Your task to perform on an android device: Search for Mexican restaurants on Maps Image 0: 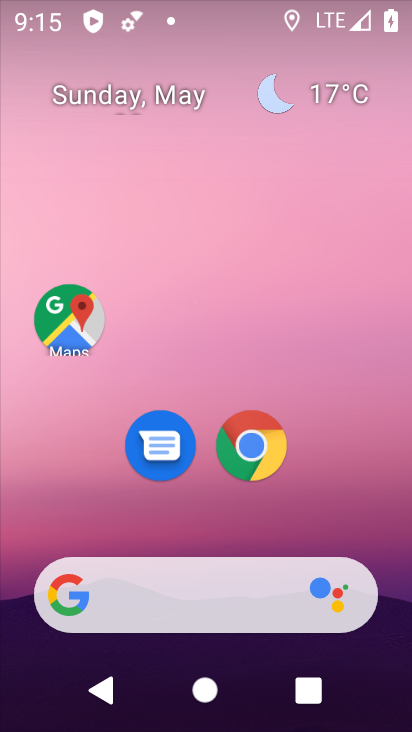
Step 0: click (216, 186)
Your task to perform on an android device: Search for Mexican restaurants on Maps Image 1: 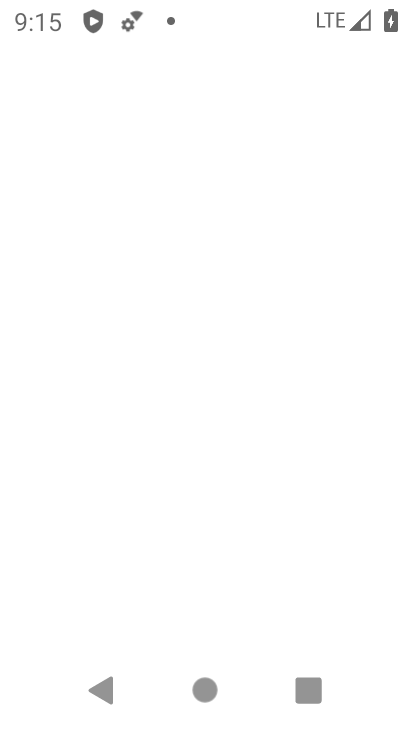
Step 1: press home button
Your task to perform on an android device: Search for Mexican restaurants on Maps Image 2: 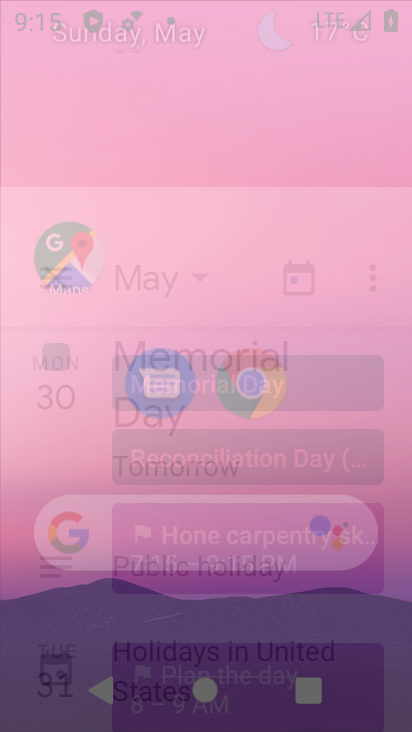
Step 2: drag from (152, 597) to (239, 168)
Your task to perform on an android device: Search for Mexican restaurants on Maps Image 3: 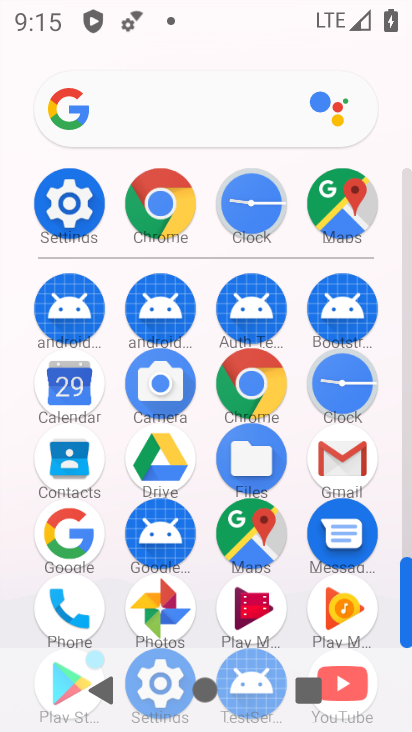
Step 3: click (270, 538)
Your task to perform on an android device: Search for Mexican restaurants on Maps Image 4: 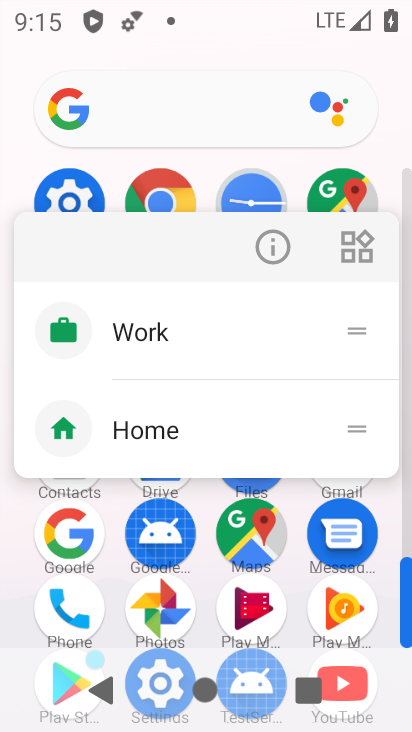
Step 4: click (273, 244)
Your task to perform on an android device: Search for Mexican restaurants on Maps Image 5: 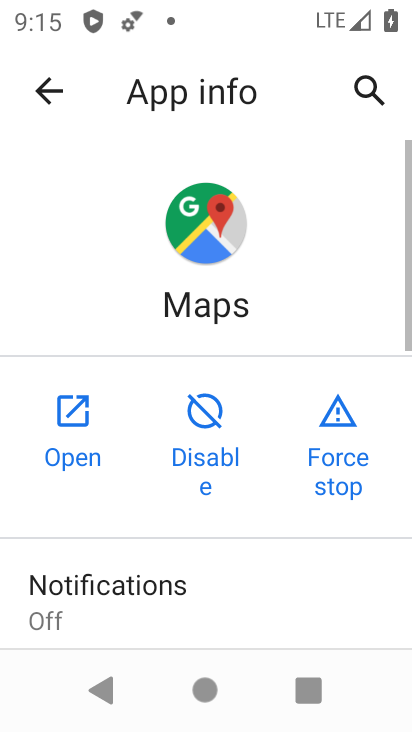
Step 5: click (67, 419)
Your task to perform on an android device: Search for Mexican restaurants on Maps Image 6: 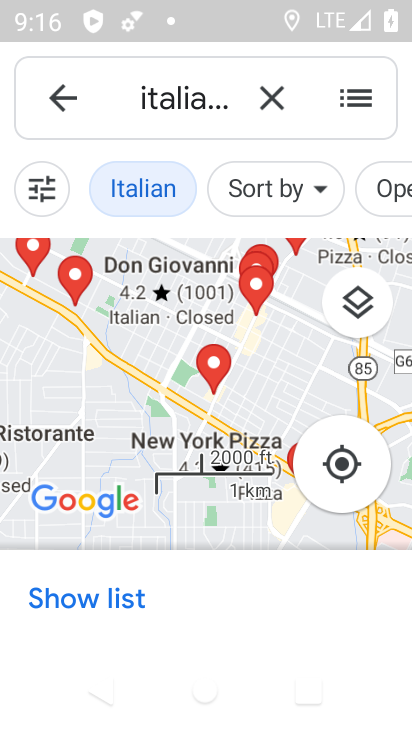
Step 6: click (266, 92)
Your task to perform on an android device: Search for Mexican restaurants on Maps Image 7: 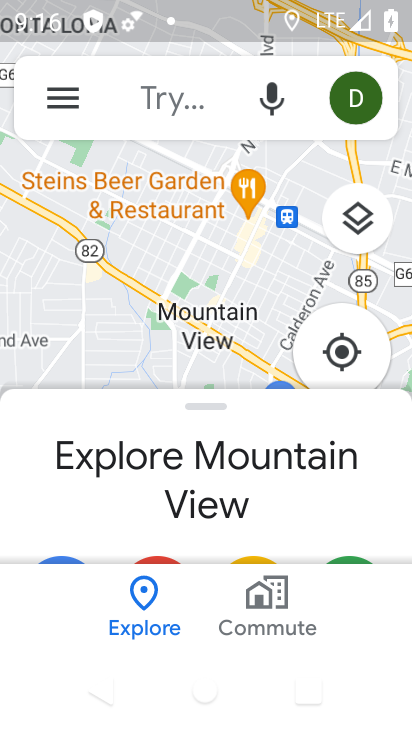
Step 7: click (146, 93)
Your task to perform on an android device: Search for Mexican restaurants on Maps Image 8: 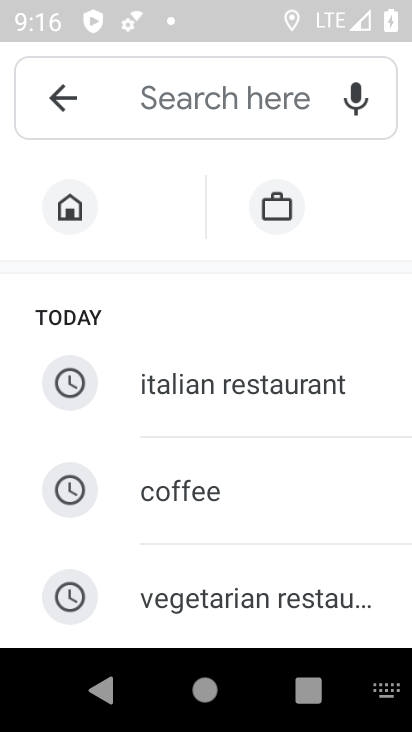
Step 8: drag from (210, 510) to (322, 112)
Your task to perform on an android device: Search for Mexican restaurants on Maps Image 9: 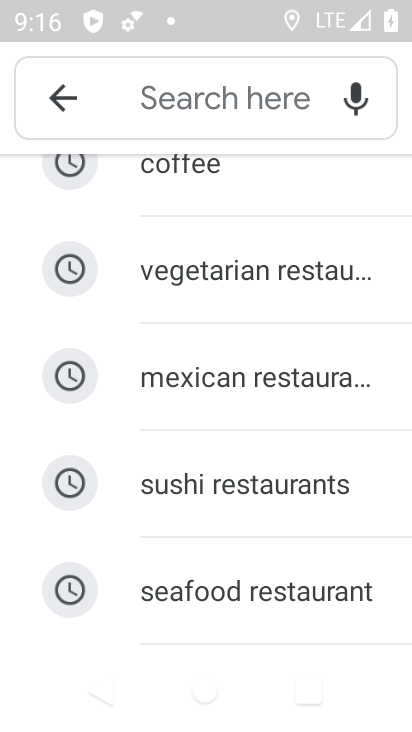
Step 9: click (188, 361)
Your task to perform on an android device: Search for Mexican restaurants on Maps Image 10: 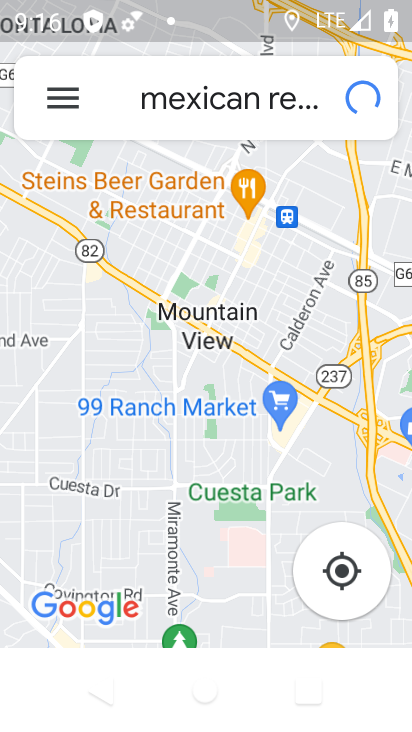
Step 10: task complete